Your task to perform on an android device: Toggle the flashlight Image 0: 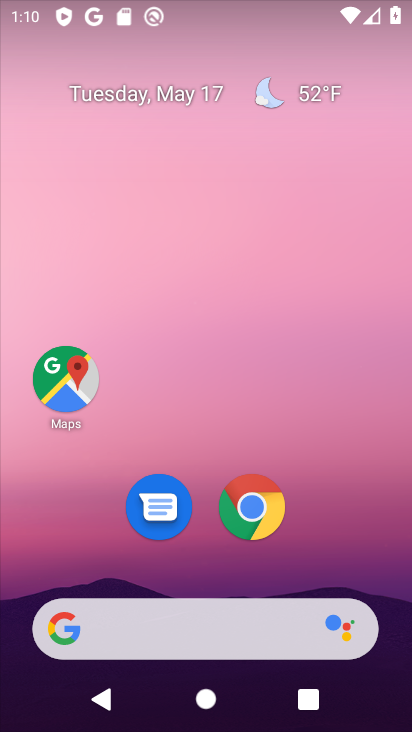
Step 0: drag from (219, 555) to (195, 67)
Your task to perform on an android device: Toggle the flashlight Image 1: 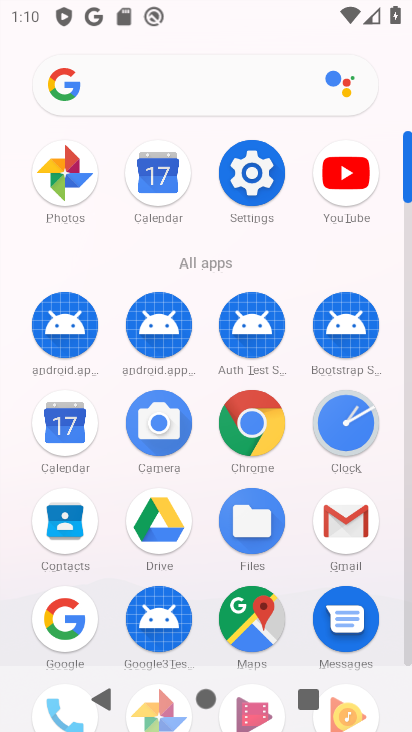
Step 1: click (243, 179)
Your task to perform on an android device: Toggle the flashlight Image 2: 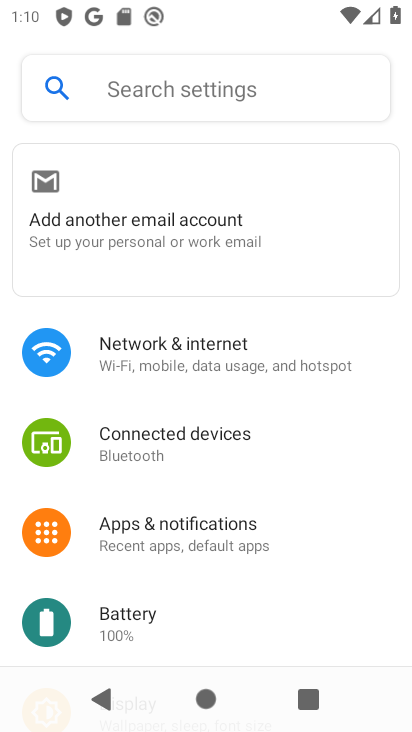
Step 2: click (147, 104)
Your task to perform on an android device: Toggle the flashlight Image 3: 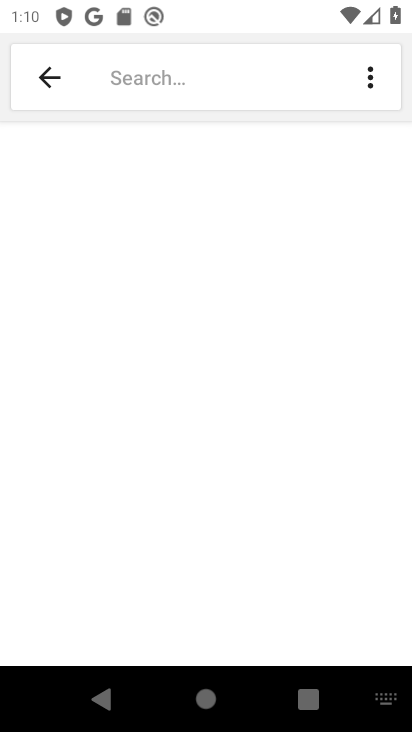
Step 3: type "flash"
Your task to perform on an android device: Toggle the flashlight Image 4: 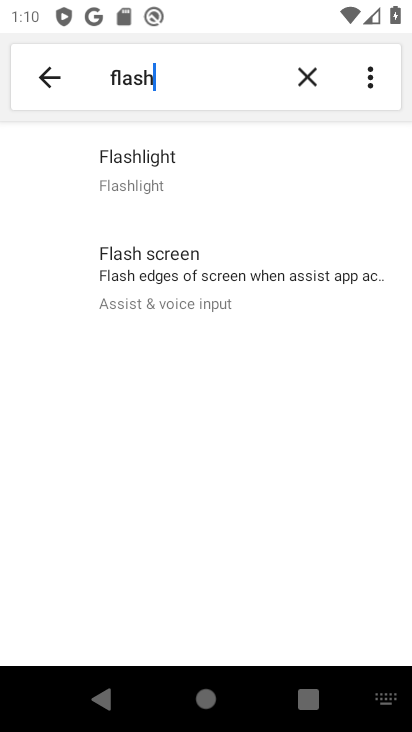
Step 4: task complete